Your task to perform on an android device: Clear the shopping cart on costco. Add duracell triple a to the cart on costco Image 0: 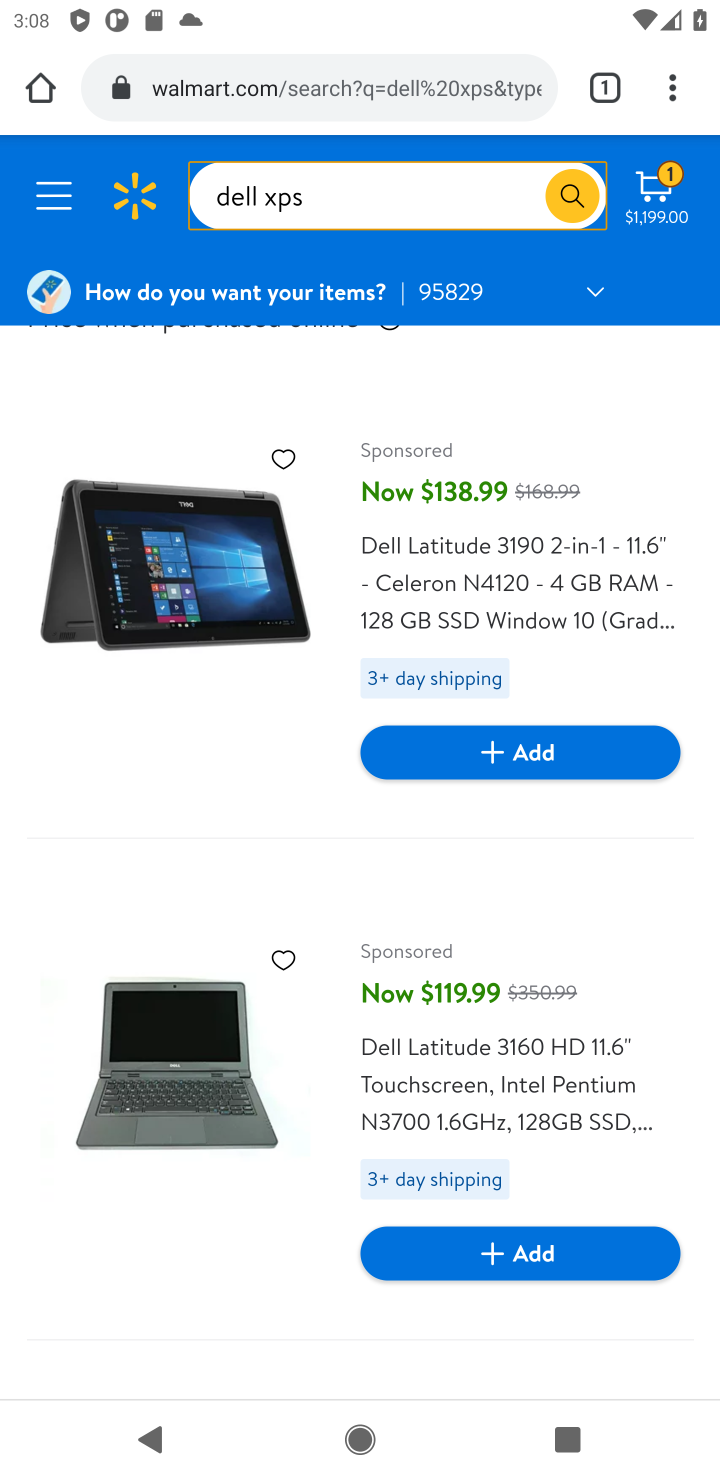
Step 0: click (307, 91)
Your task to perform on an android device: Clear the shopping cart on costco. Add duracell triple a to the cart on costco Image 1: 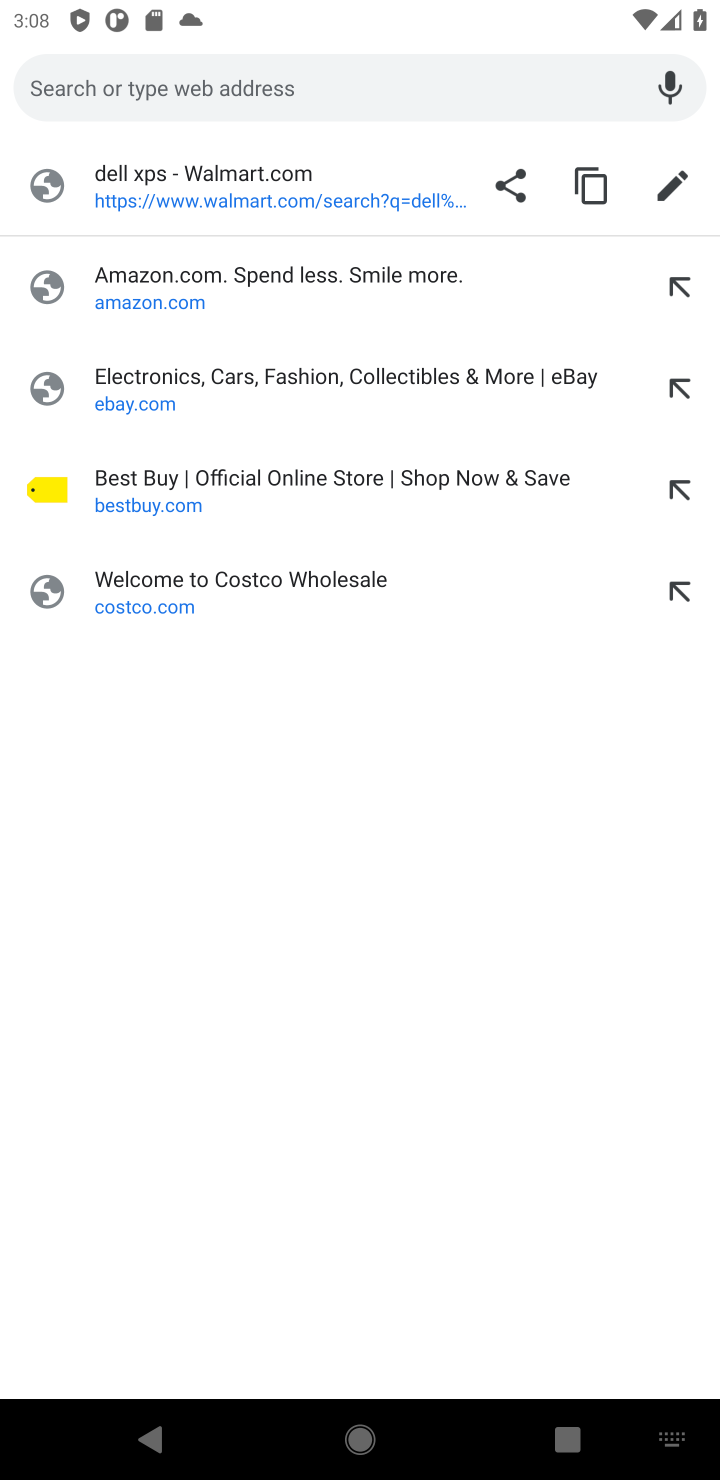
Step 1: click (129, 607)
Your task to perform on an android device: Clear the shopping cart on costco. Add duracell triple a to the cart on costco Image 2: 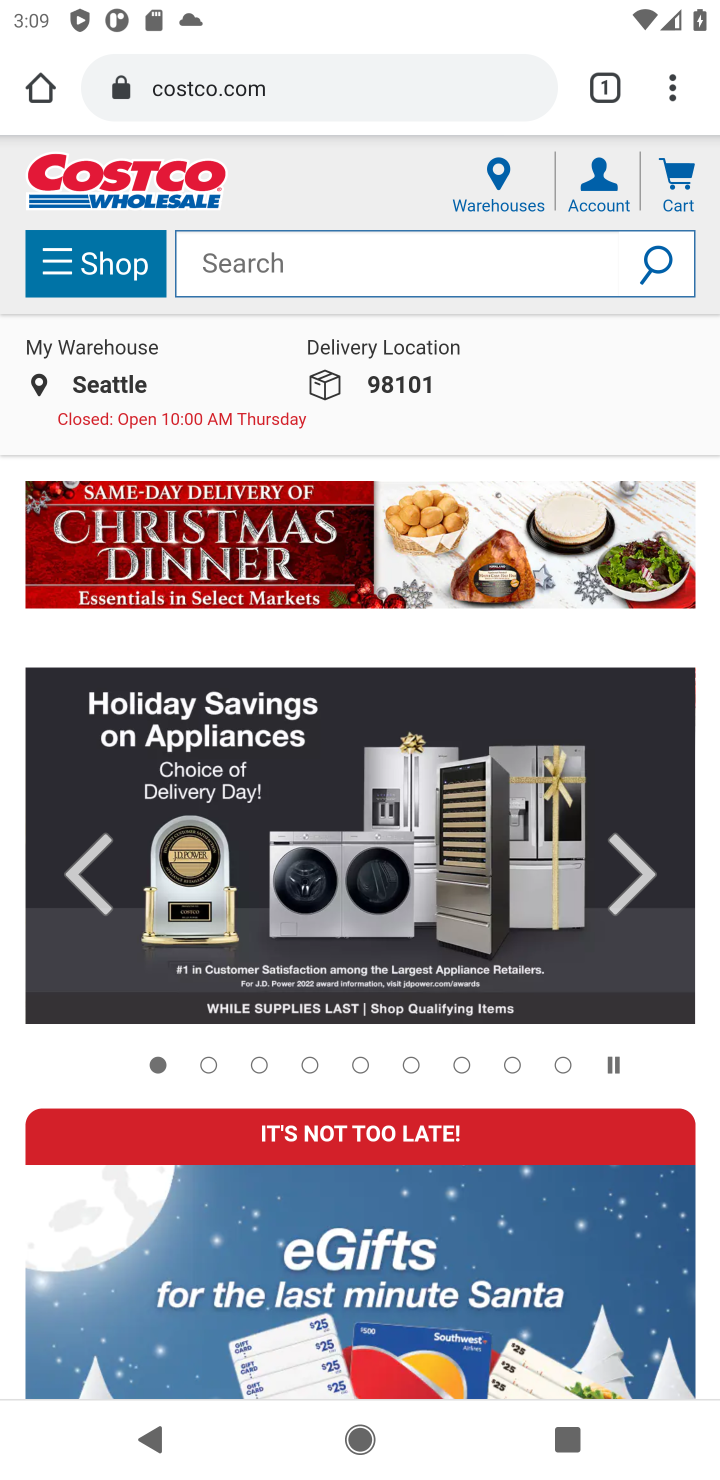
Step 2: click (674, 198)
Your task to perform on an android device: Clear the shopping cart on costco. Add duracell triple a to the cart on costco Image 3: 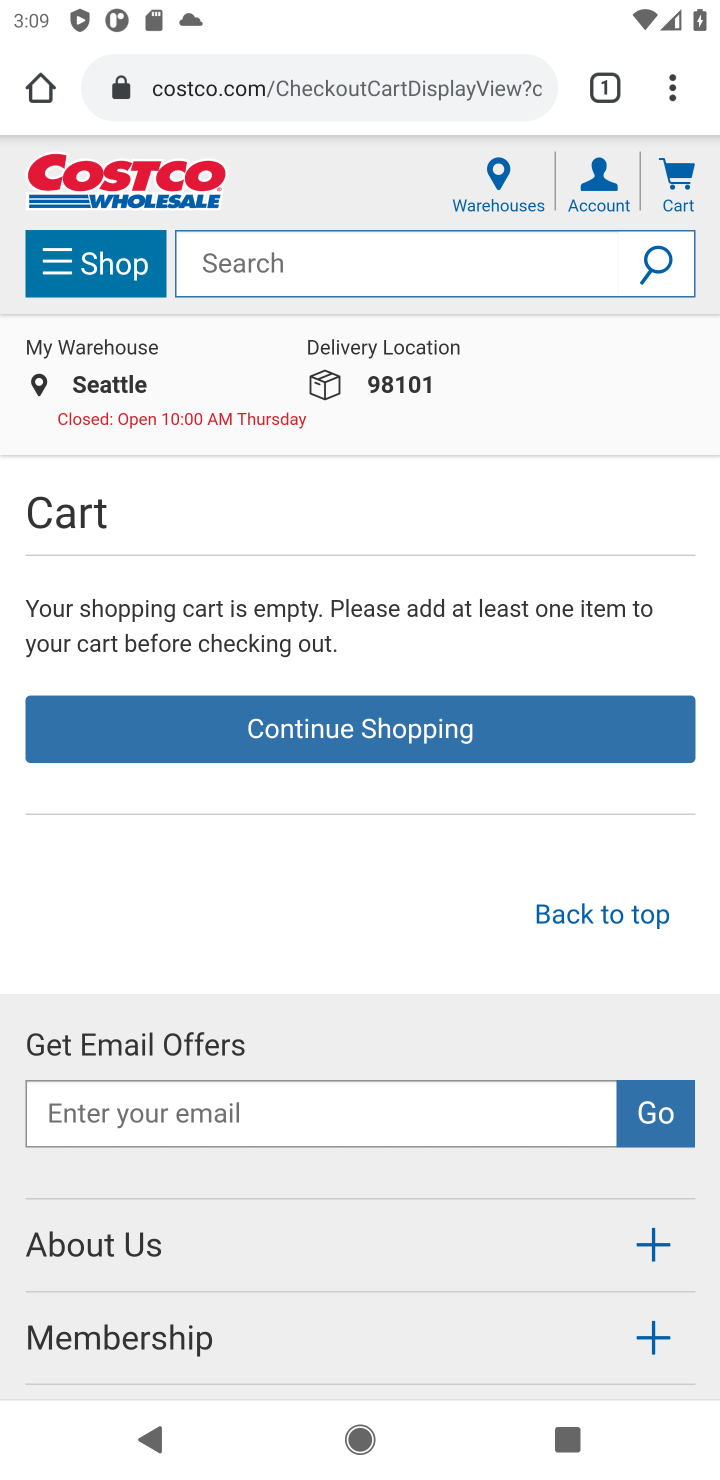
Step 3: click (245, 274)
Your task to perform on an android device: Clear the shopping cart on costco. Add duracell triple a to the cart on costco Image 4: 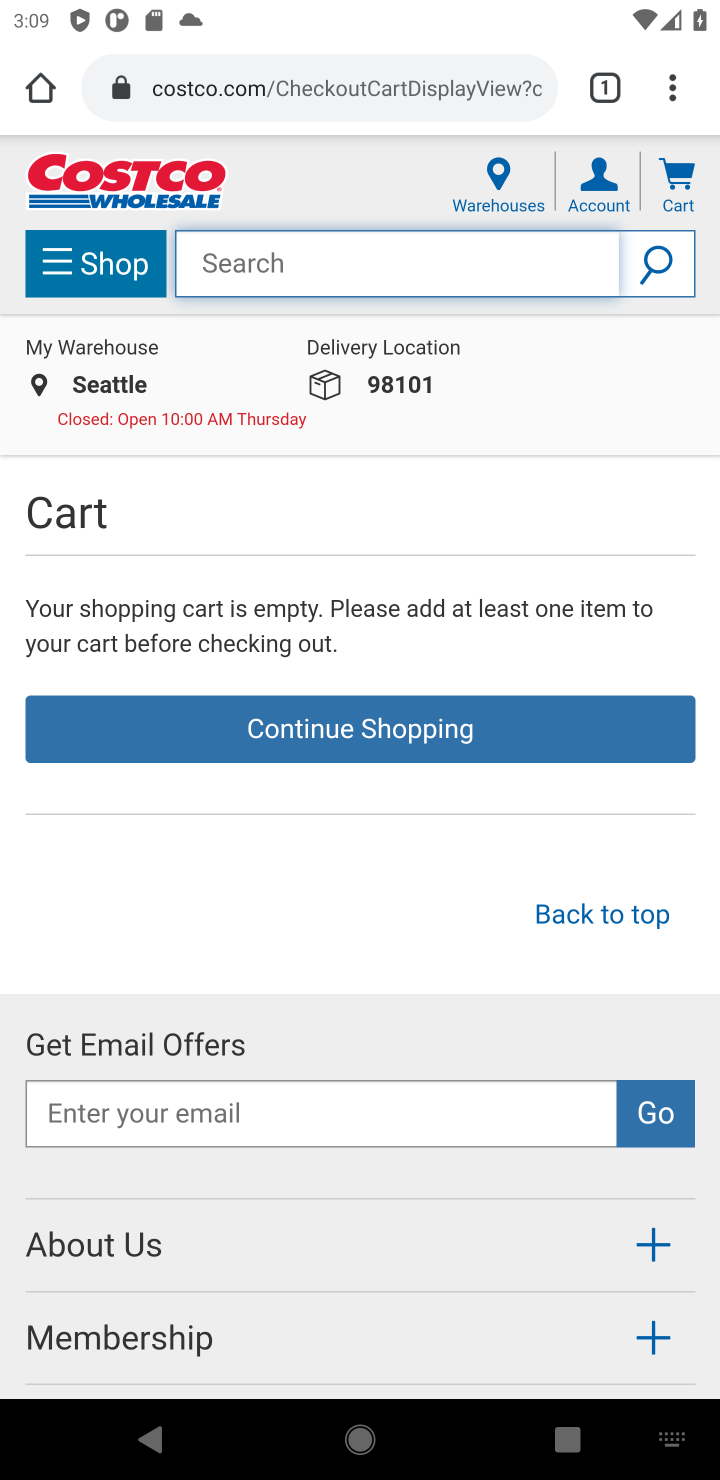
Step 4: type "duracell triple a"
Your task to perform on an android device: Clear the shopping cart on costco. Add duracell triple a to the cart on costco Image 5: 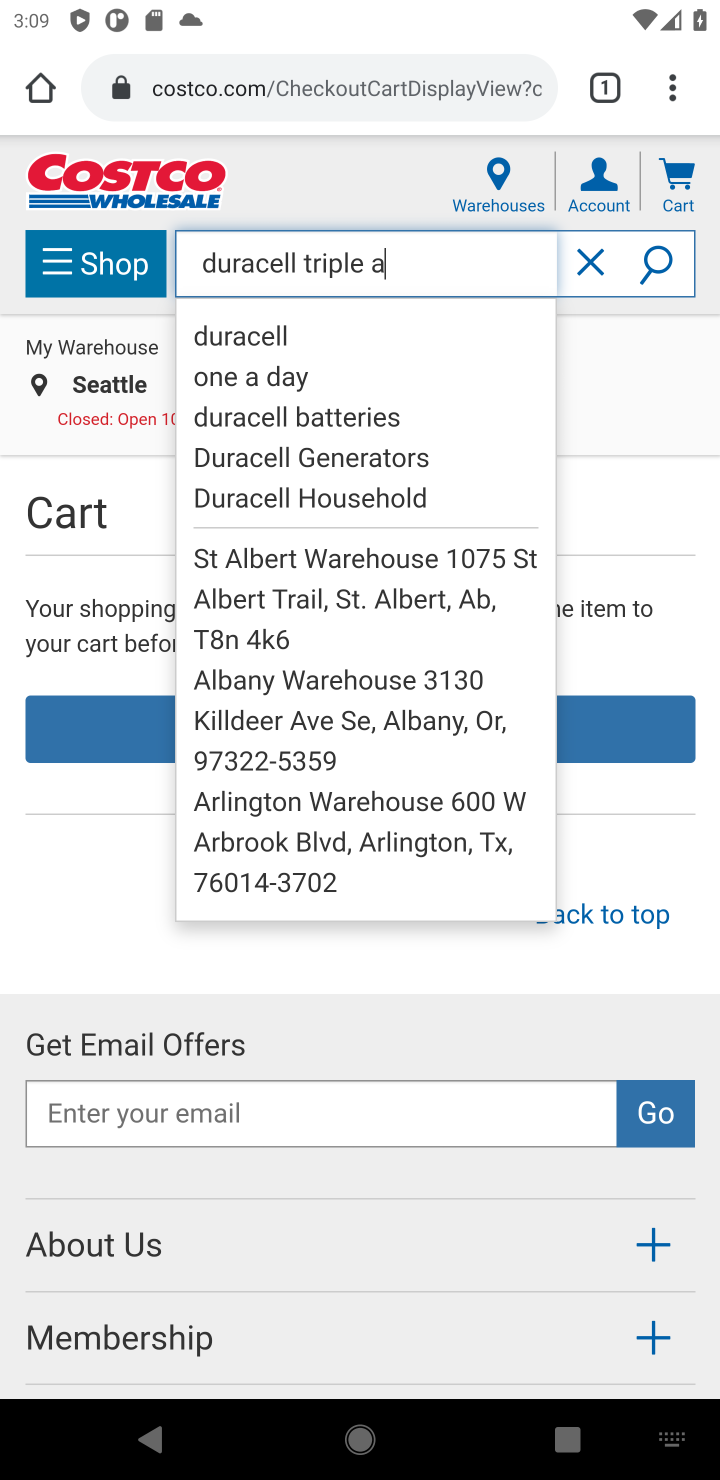
Step 5: click (657, 268)
Your task to perform on an android device: Clear the shopping cart on costco. Add duracell triple a to the cart on costco Image 6: 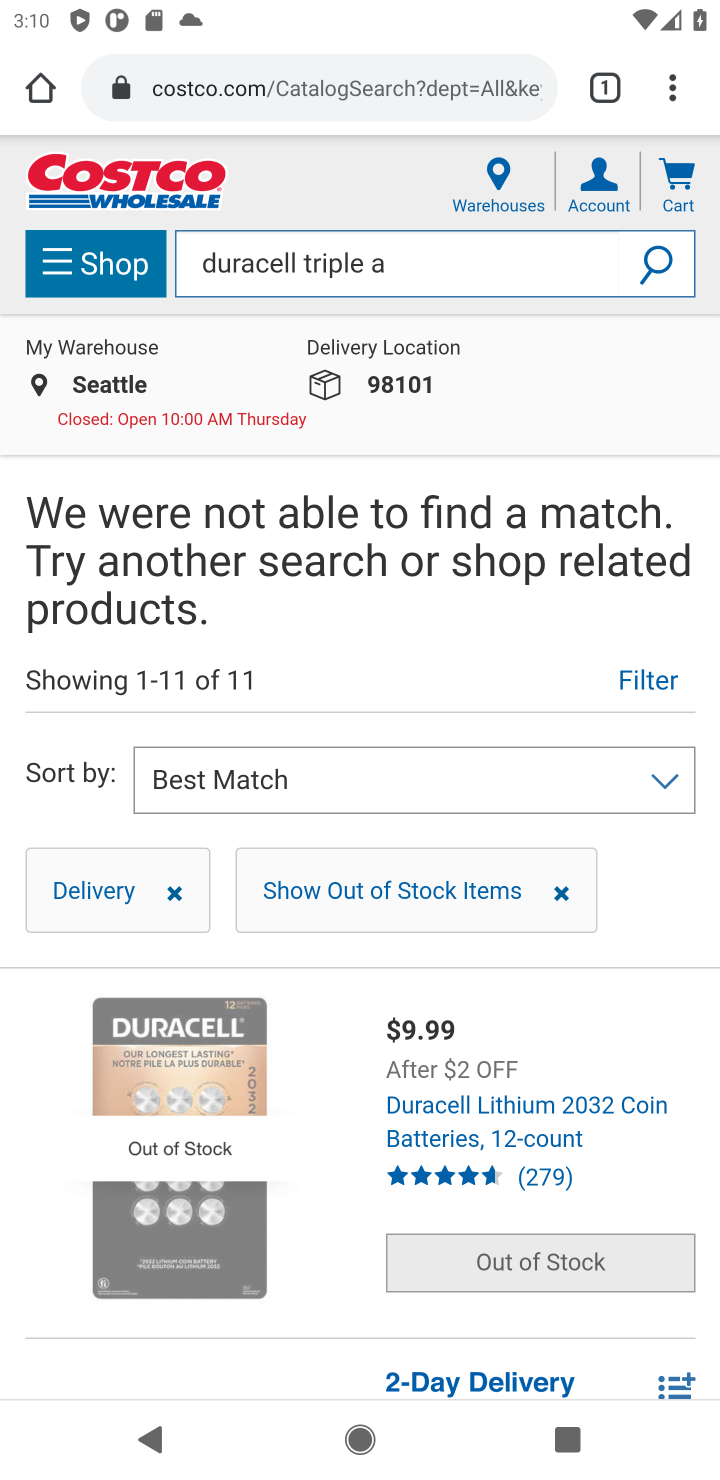
Step 6: task complete